Your task to perform on an android device: Open Chrome and go to settings Image 0: 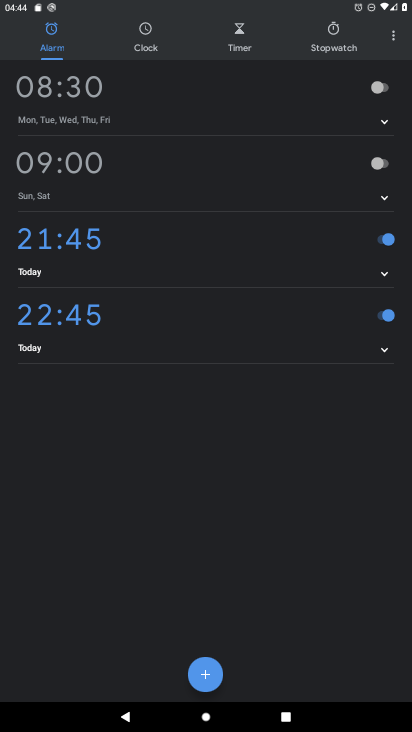
Step 0: press home button
Your task to perform on an android device: Open Chrome and go to settings Image 1: 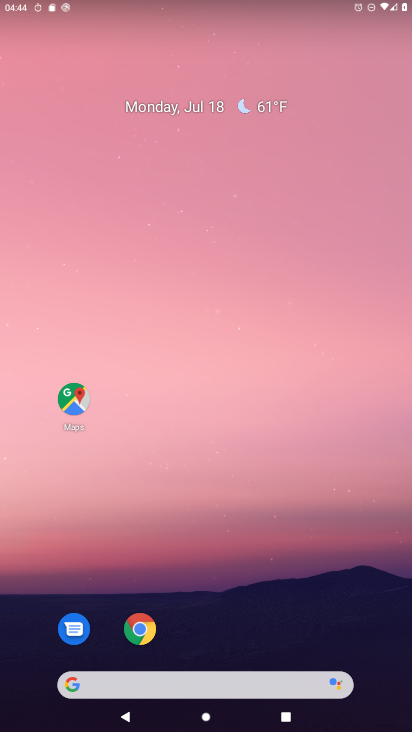
Step 1: click (140, 630)
Your task to perform on an android device: Open Chrome and go to settings Image 2: 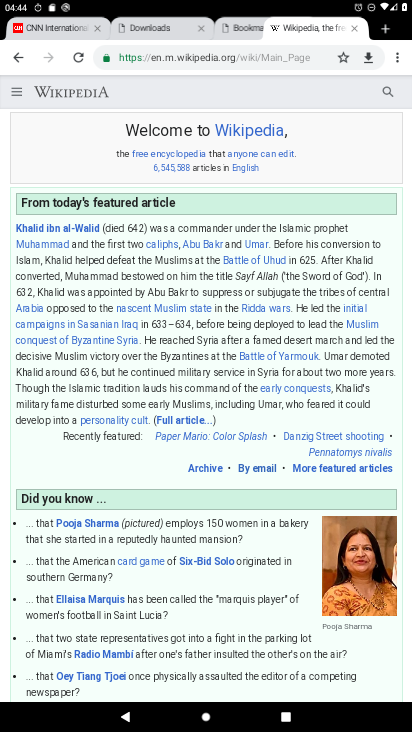
Step 2: click (398, 57)
Your task to perform on an android device: Open Chrome and go to settings Image 3: 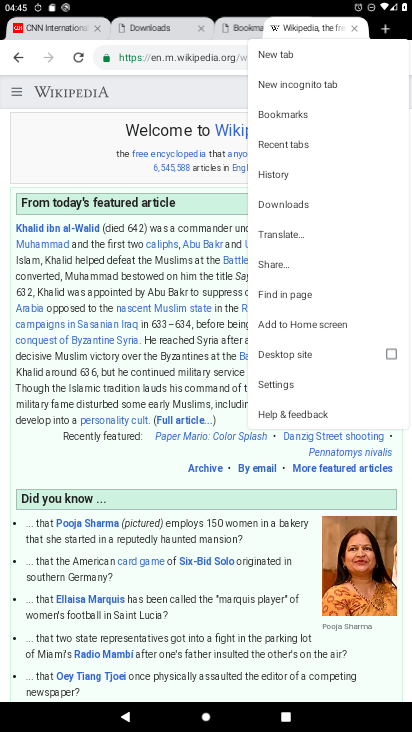
Step 3: click (278, 385)
Your task to perform on an android device: Open Chrome and go to settings Image 4: 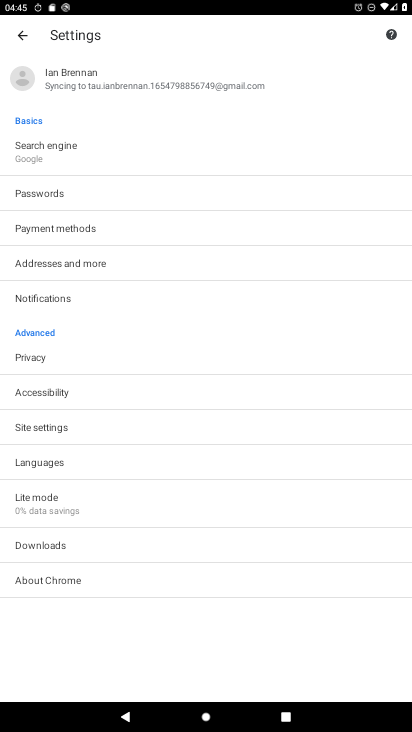
Step 4: task complete